Your task to perform on an android device: Open the calendar and show me this week's events Image 0: 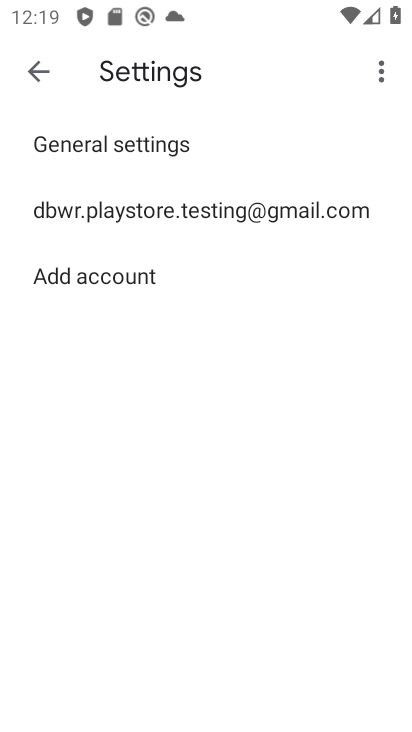
Step 0: press home button
Your task to perform on an android device: Open the calendar and show me this week's events Image 1: 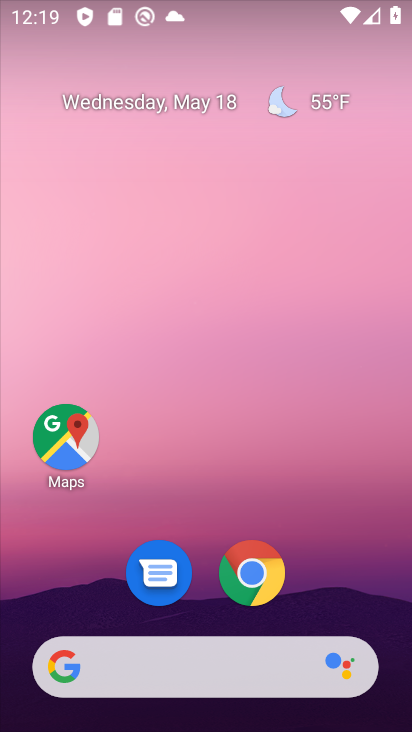
Step 1: drag from (375, 580) to (362, 139)
Your task to perform on an android device: Open the calendar and show me this week's events Image 2: 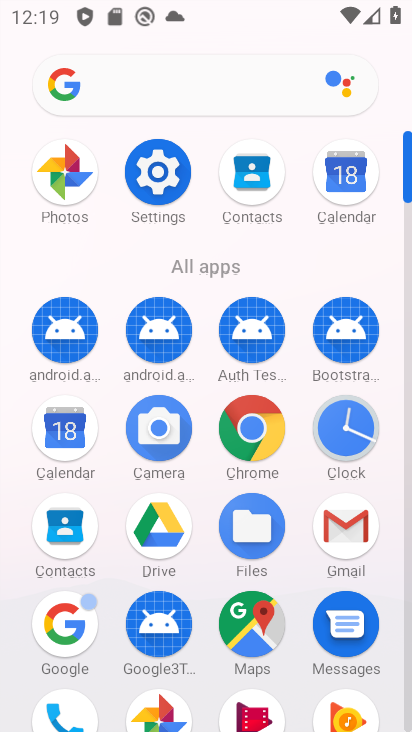
Step 2: click (354, 197)
Your task to perform on an android device: Open the calendar and show me this week's events Image 3: 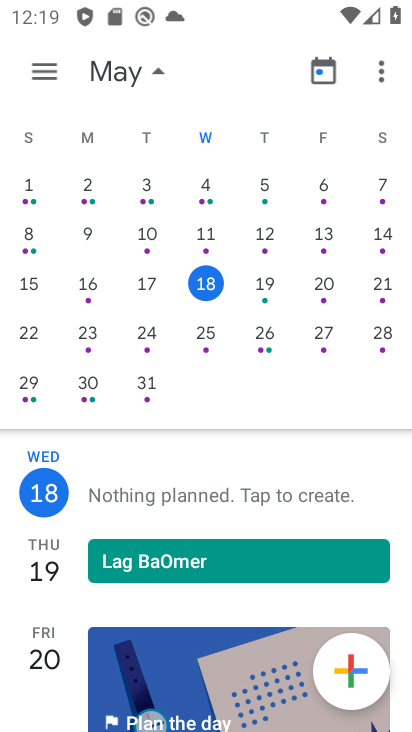
Step 3: task complete